Your task to perform on an android device: Search for seafood restaurants on Google Maps Image 0: 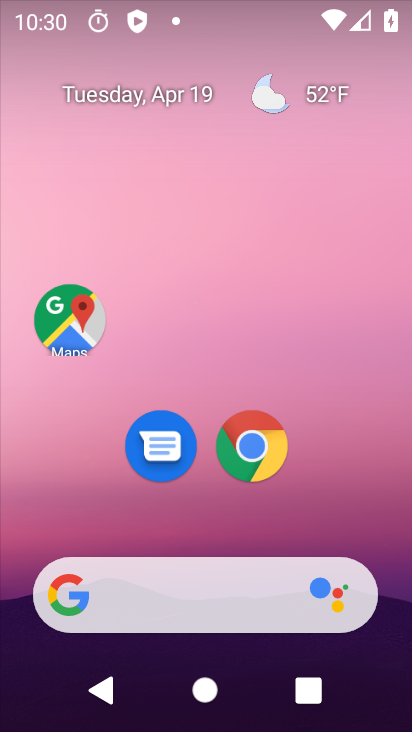
Step 0: click (79, 315)
Your task to perform on an android device: Search for seafood restaurants on Google Maps Image 1: 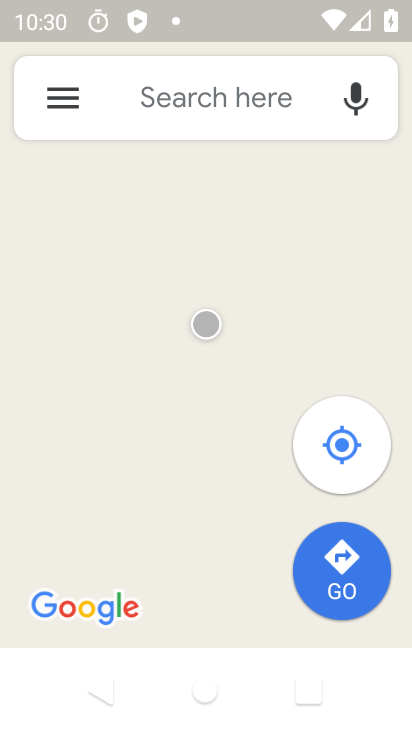
Step 1: click (190, 104)
Your task to perform on an android device: Search for seafood restaurants on Google Maps Image 2: 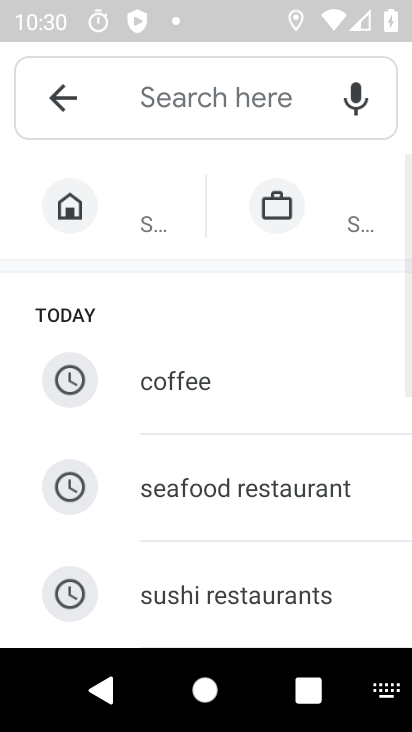
Step 2: type "seafood restaurants"
Your task to perform on an android device: Search for seafood restaurants on Google Maps Image 3: 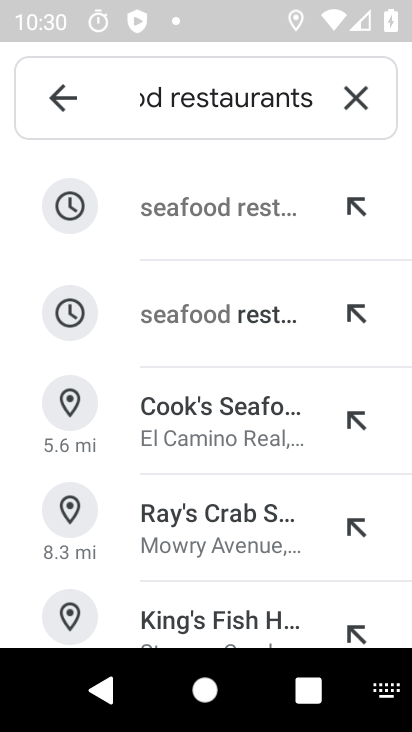
Step 3: click (191, 207)
Your task to perform on an android device: Search for seafood restaurants on Google Maps Image 4: 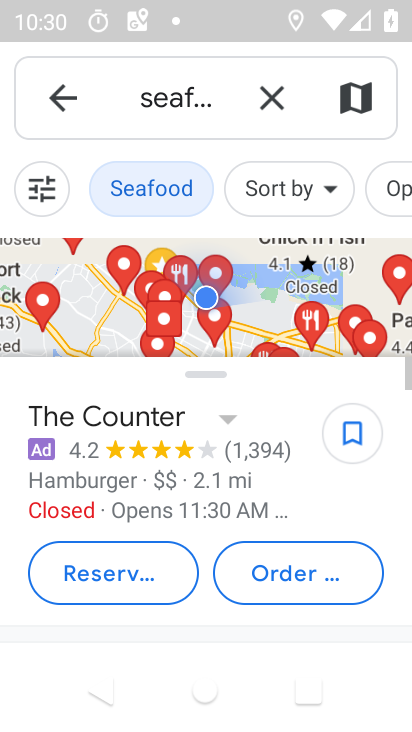
Step 4: task complete